Your task to perform on an android device: Open Chrome and go to settings Image 0: 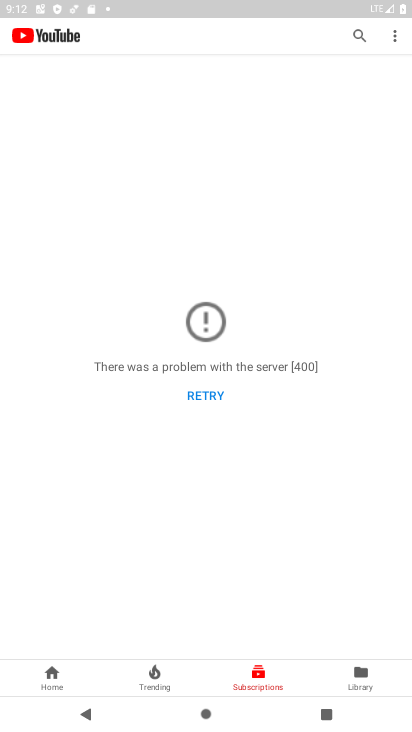
Step 0: press home button
Your task to perform on an android device: Open Chrome and go to settings Image 1: 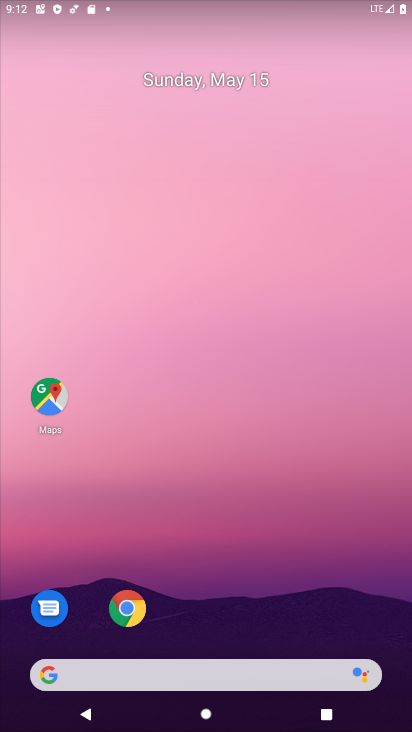
Step 1: drag from (301, 613) to (366, 6)
Your task to perform on an android device: Open Chrome and go to settings Image 2: 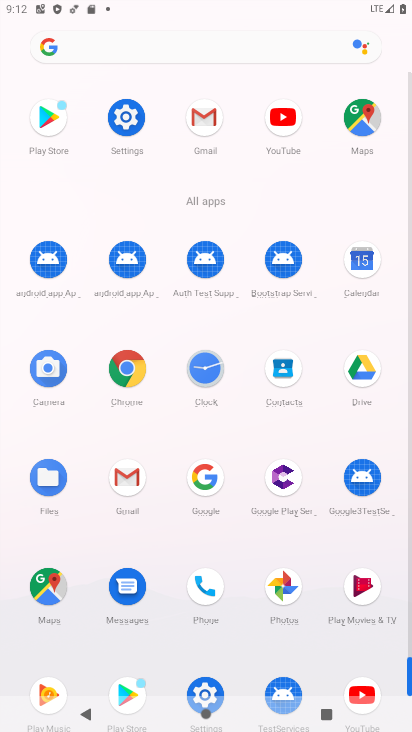
Step 2: click (132, 382)
Your task to perform on an android device: Open Chrome and go to settings Image 3: 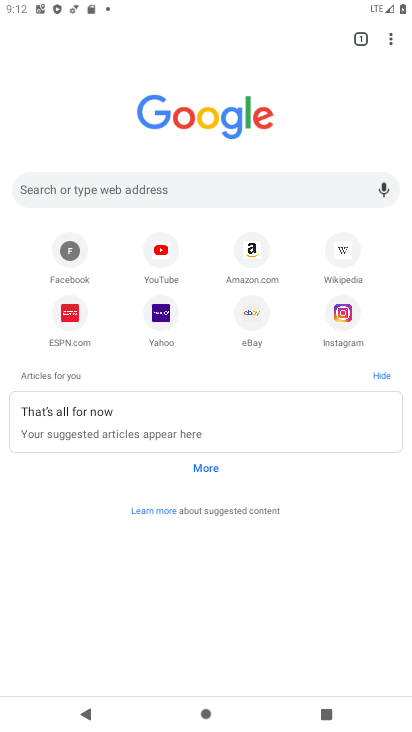
Step 3: click (393, 46)
Your task to perform on an android device: Open Chrome and go to settings Image 4: 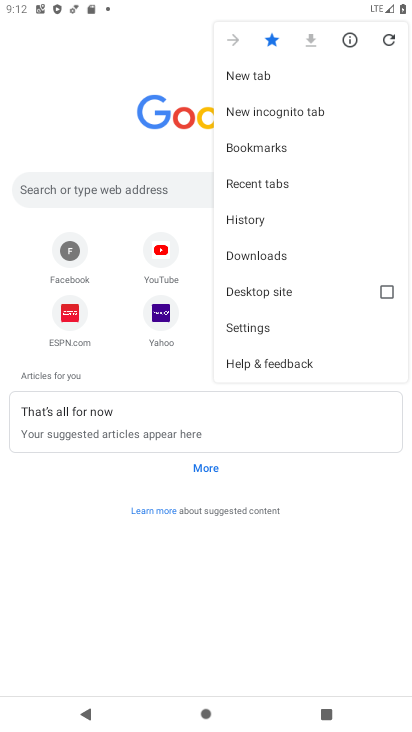
Step 4: click (265, 332)
Your task to perform on an android device: Open Chrome and go to settings Image 5: 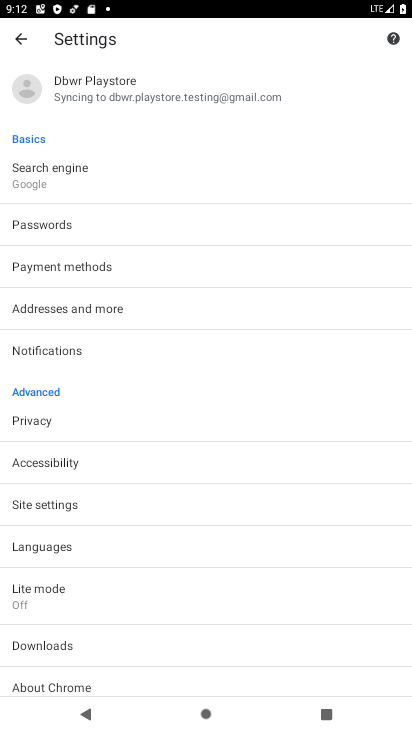
Step 5: task complete